Your task to perform on an android device: Set the phone to "Do not disturb". Image 0: 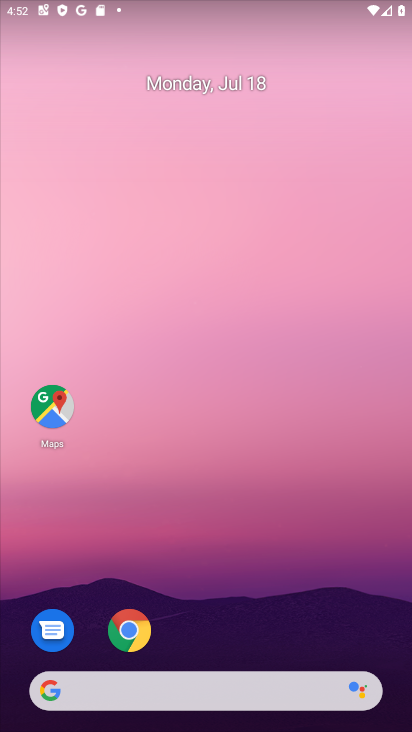
Step 0: press home button
Your task to perform on an android device: Set the phone to "Do not disturb". Image 1: 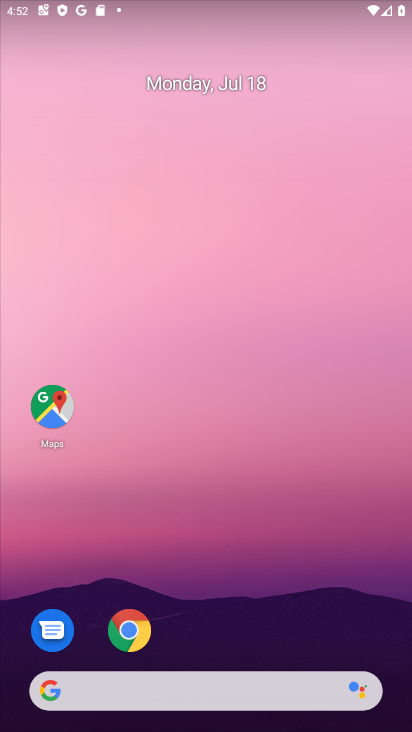
Step 1: drag from (243, 8) to (217, 514)
Your task to perform on an android device: Set the phone to "Do not disturb". Image 2: 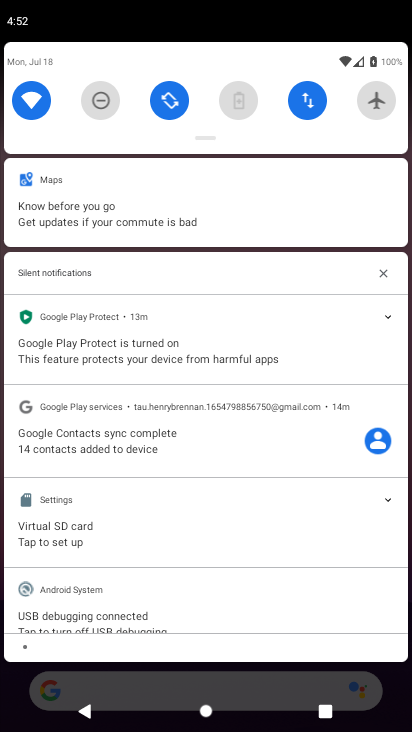
Step 2: click (99, 97)
Your task to perform on an android device: Set the phone to "Do not disturb". Image 3: 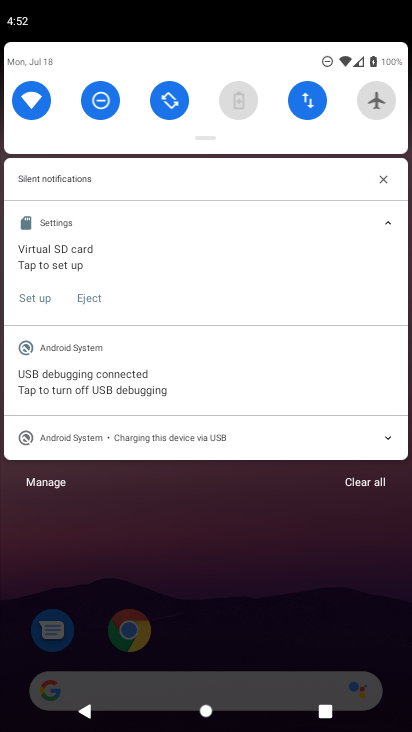
Step 3: task complete